Your task to perform on an android device: delete browsing data in the chrome app Image 0: 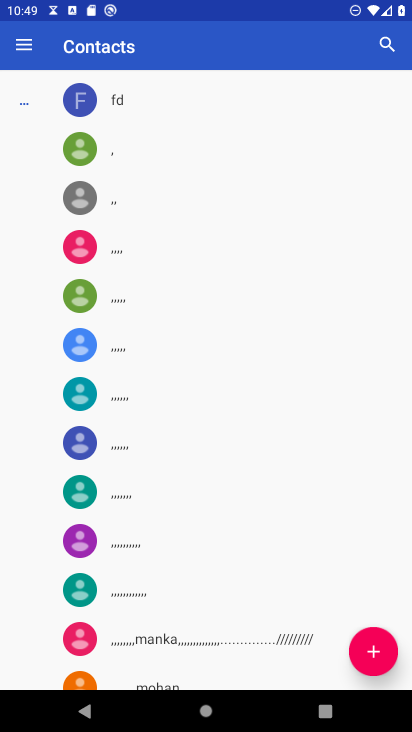
Step 0: press home button
Your task to perform on an android device: delete browsing data in the chrome app Image 1: 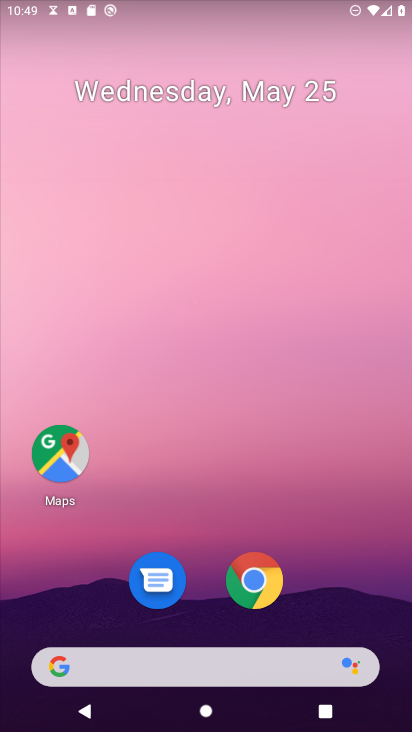
Step 1: click (235, 592)
Your task to perform on an android device: delete browsing data in the chrome app Image 2: 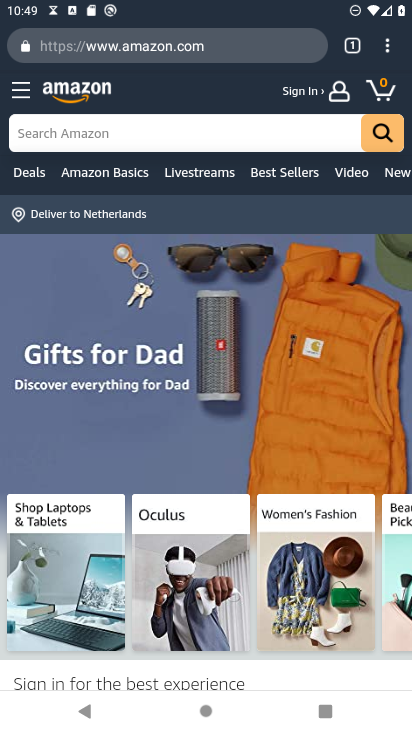
Step 2: click (378, 46)
Your task to perform on an android device: delete browsing data in the chrome app Image 3: 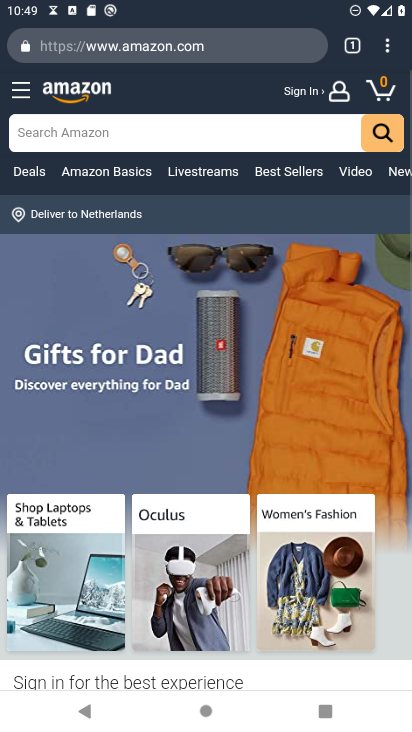
Step 3: click (396, 43)
Your task to perform on an android device: delete browsing data in the chrome app Image 4: 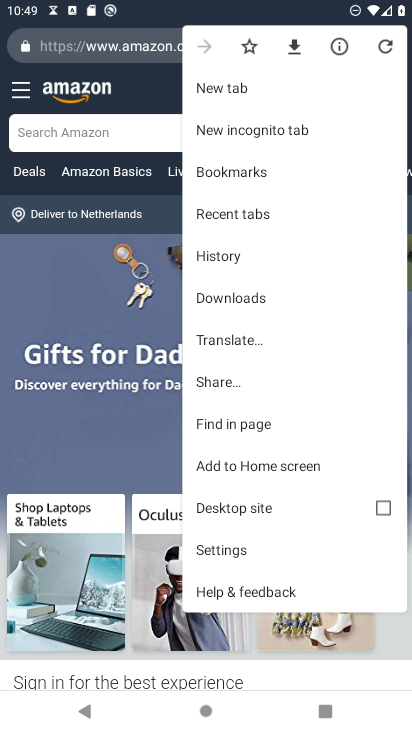
Step 4: click (221, 259)
Your task to perform on an android device: delete browsing data in the chrome app Image 5: 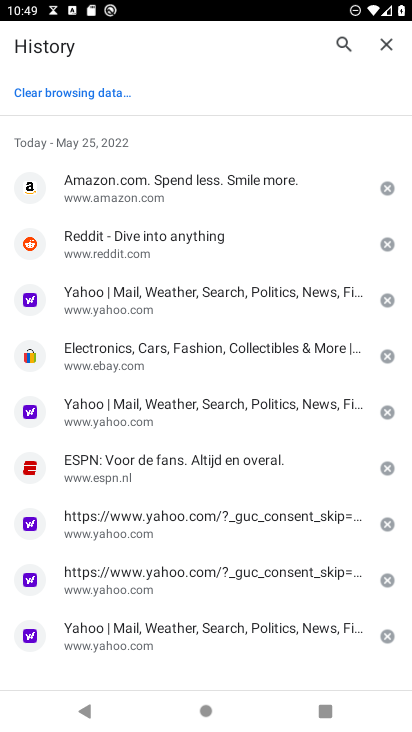
Step 5: click (109, 97)
Your task to perform on an android device: delete browsing data in the chrome app Image 6: 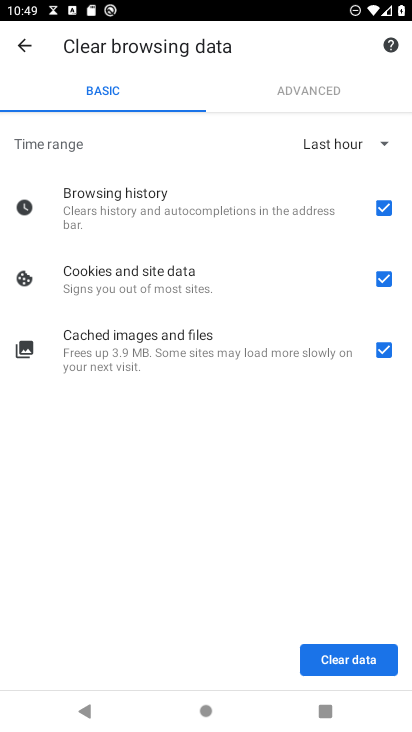
Step 6: click (356, 657)
Your task to perform on an android device: delete browsing data in the chrome app Image 7: 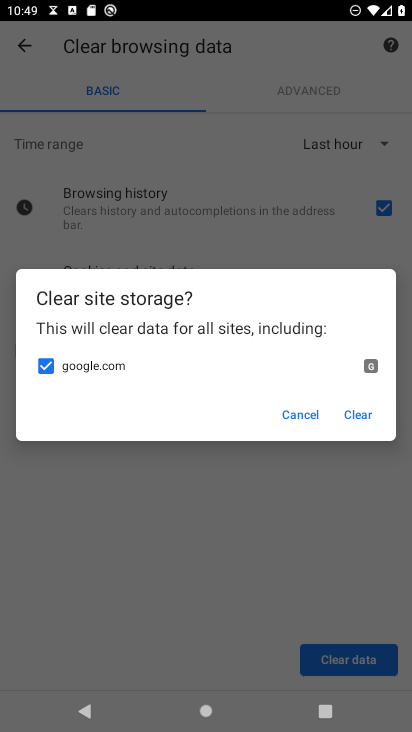
Step 7: click (348, 414)
Your task to perform on an android device: delete browsing data in the chrome app Image 8: 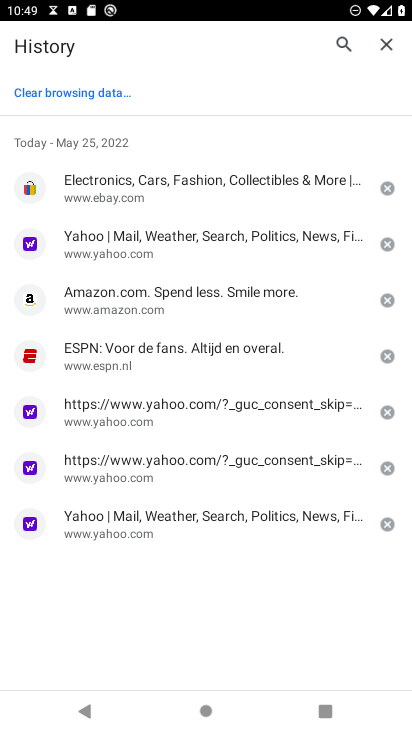
Step 8: task complete